Your task to perform on an android device: Check the weather Image 0: 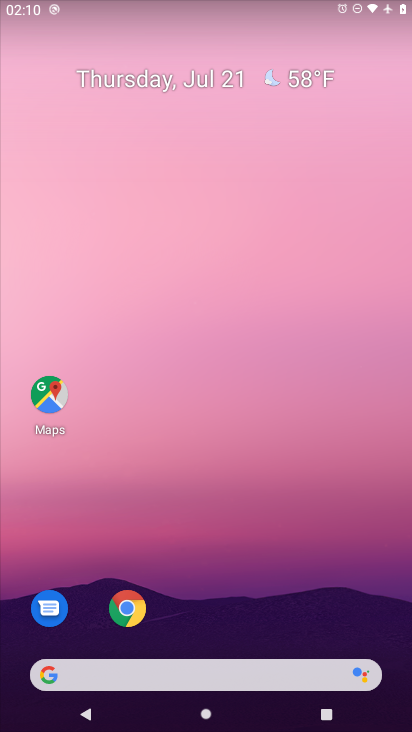
Step 0: press home button
Your task to perform on an android device: Check the weather Image 1: 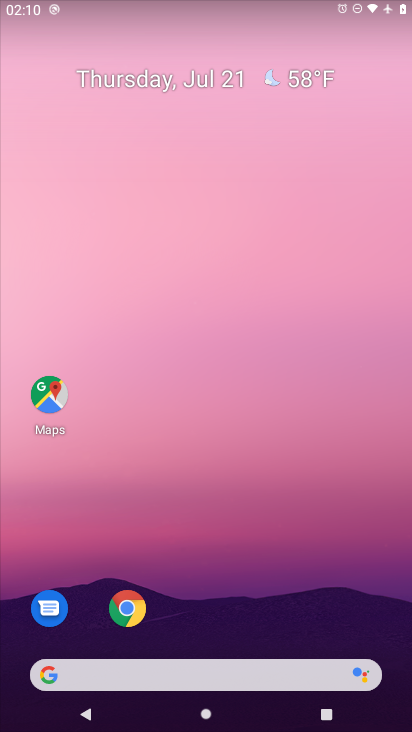
Step 1: drag from (222, 628) to (178, 4)
Your task to perform on an android device: Check the weather Image 2: 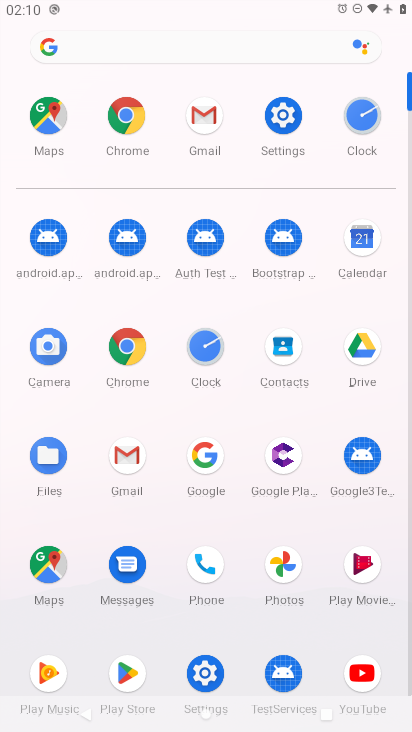
Step 2: click (198, 454)
Your task to perform on an android device: Check the weather Image 3: 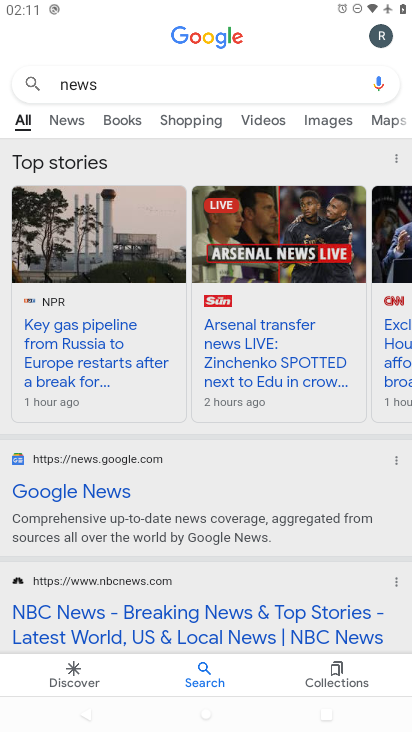
Step 3: click (113, 76)
Your task to perform on an android device: Check the weather Image 4: 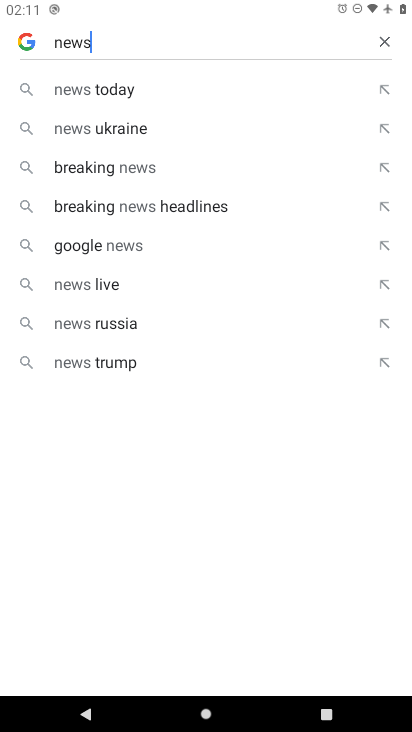
Step 4: click (380, 40)
Your task to perform on an android device: Check the weather Image 5: 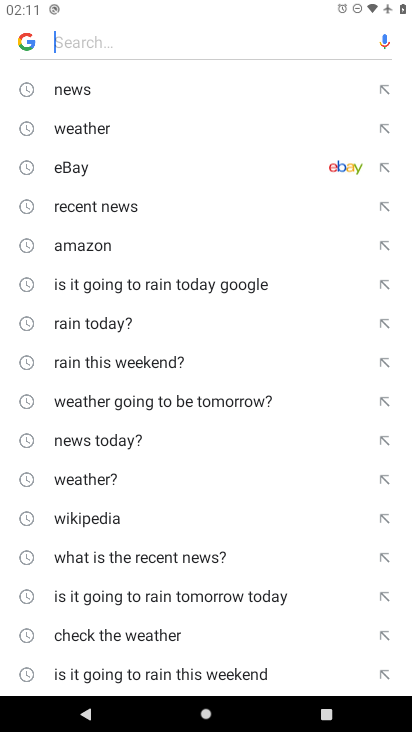
Step 5: click (68, 138)
Your task to perform on an android device: Check the weather Image 6: 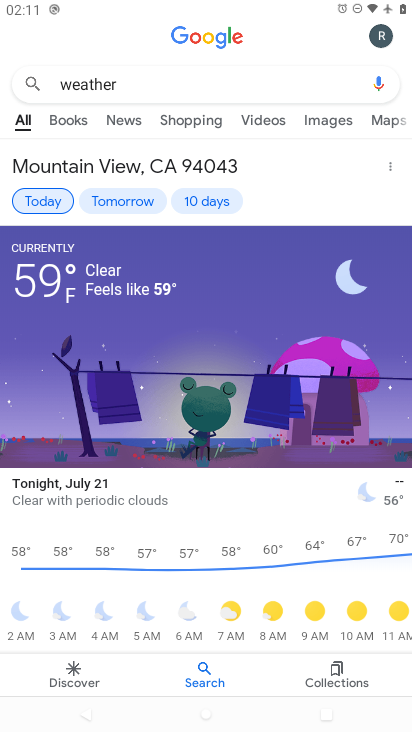
Step 6: task complete